Your task to perform on an android device: Open wifi settings Image 0: 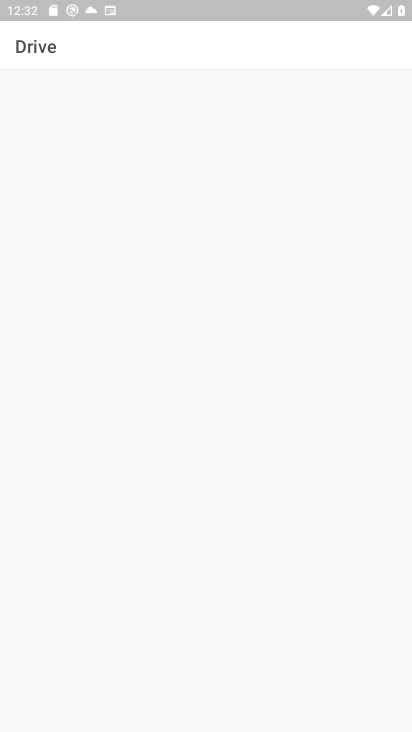
Step 0: press home button
Your task to perform on an android device: Open wifi settings Image 1: 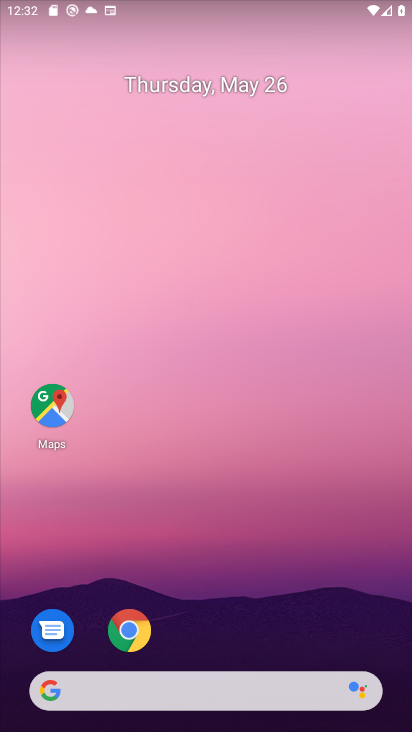
Step 1: drag from (206, 654) to (204, 28)
Your task to perform on an android device: Open wifi settings Image 2: 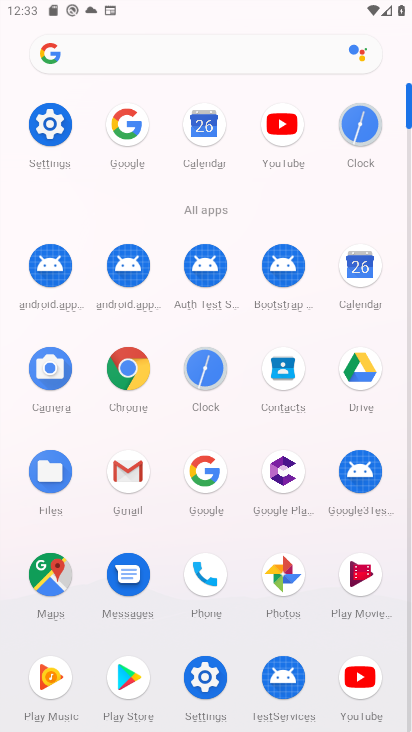
Step 2: click (46, 115)
Your task to perform on an android device: Open wifi settings Image 3: 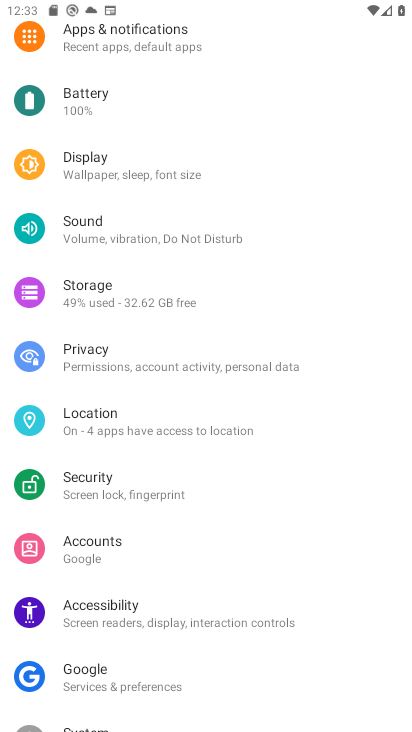
Step 3: drag from (134, 78) to (110, 698)
Your task to perform on an android device: Open wifi settings Image 4: 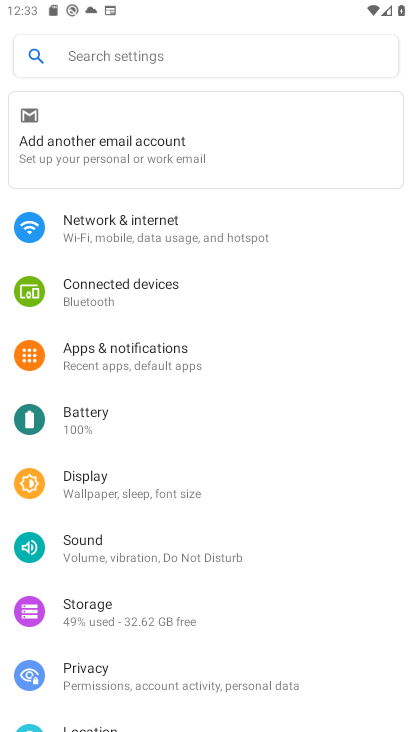
Step 4: click (192, 225)
Your task to perform on an android device: Open wifi settings Image 5: 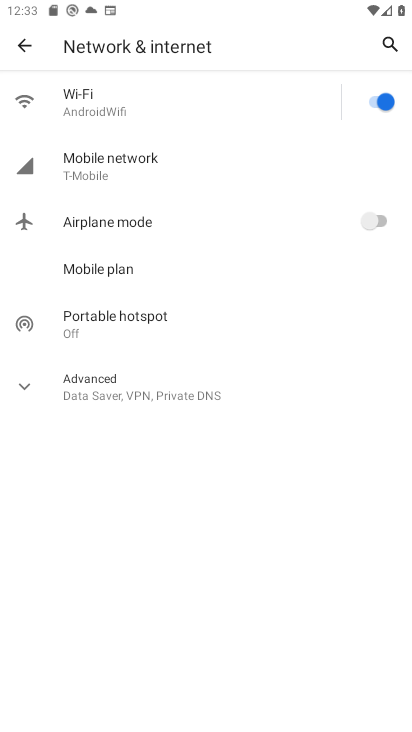
Step 5: click (161, 96)
Your task to perform on an android device: Open wifi settings Image 6: 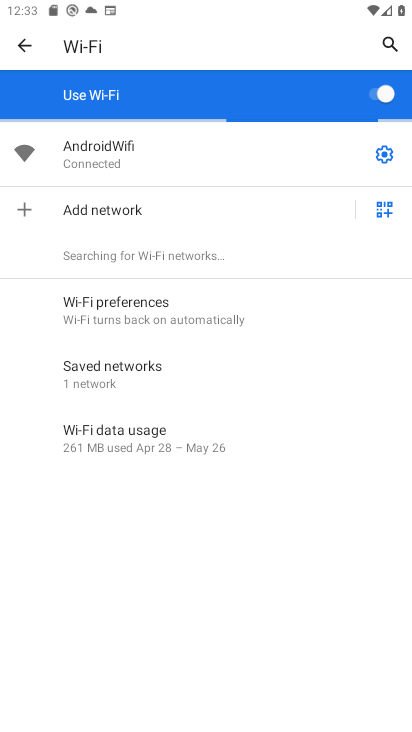
Step 6: task complete